Your task to perform on an android device: change the clock style Image 0: 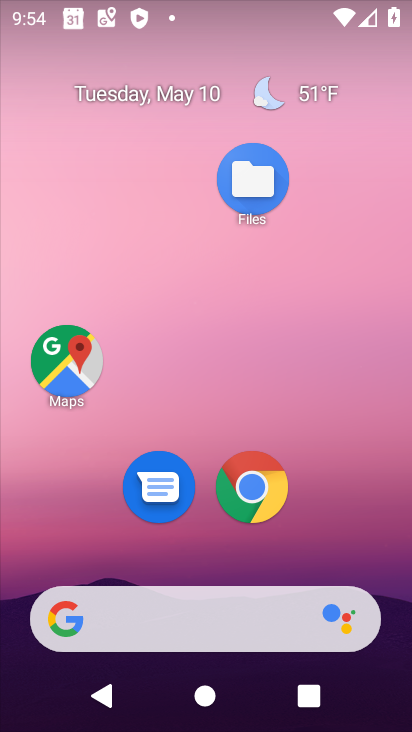
Step 0: drag from (192, 552) to (207, 145)
Your task to perform on an android device: change the clock style Image 1: 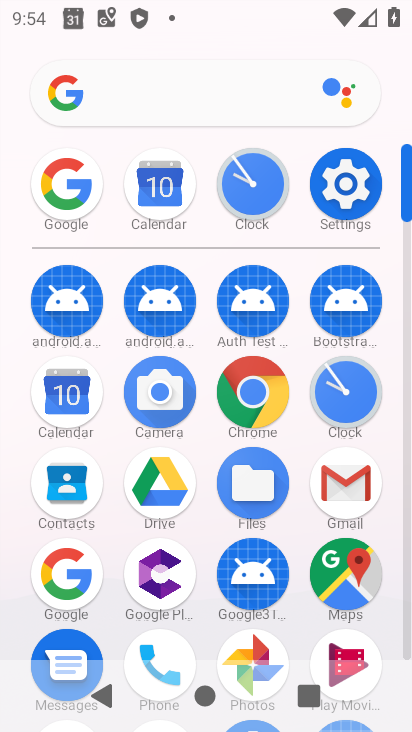
Step 1: click (348, 399)
Your task to perform on an android device: change the clock style Image 2: 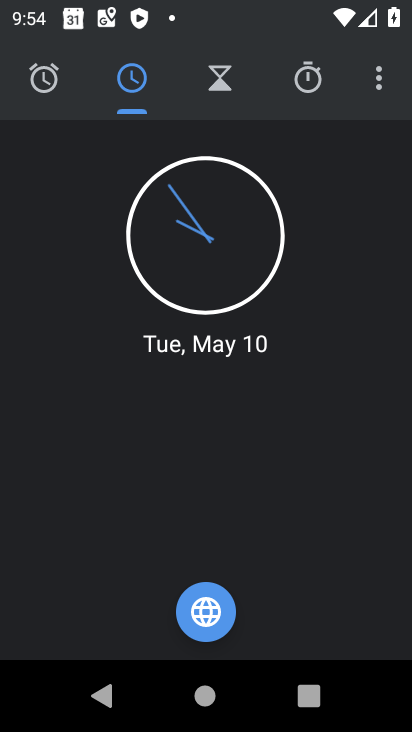
Step 2: click (369, 73)
Your task to perform on an android device: change the clock style Image 3: 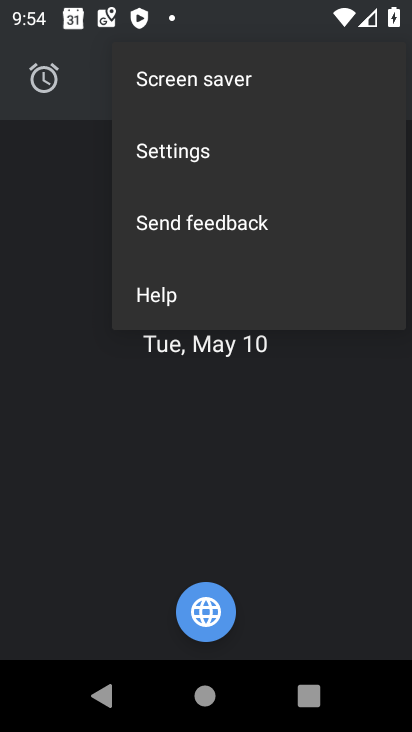
Step 3: click (162, 146)
Your task to perform on an android device: change the clock style Image 4: 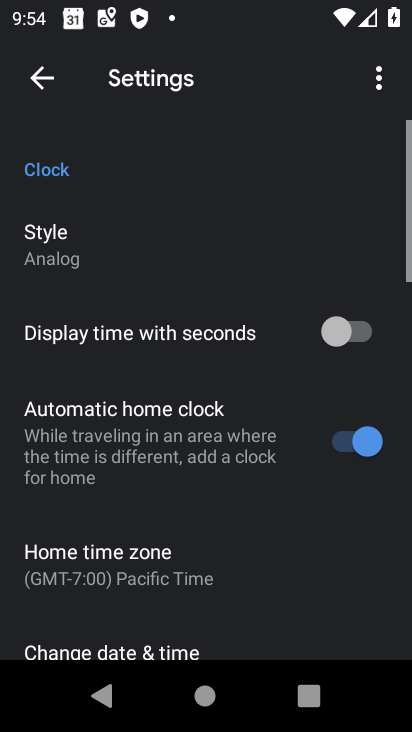
Step 4: click (124, 289)
Your task to perform on an android device: change the clock style Image 5: 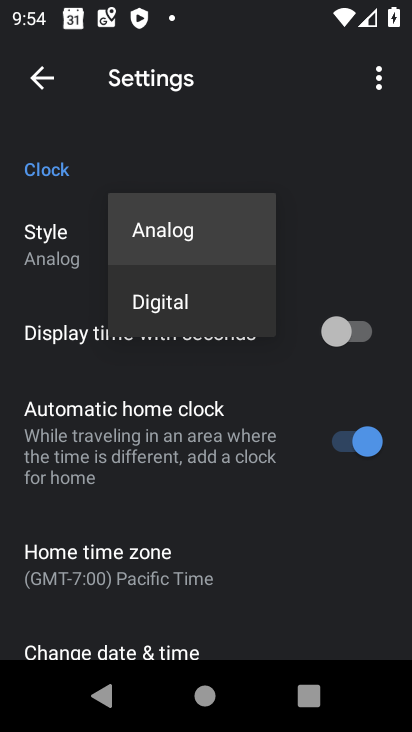
Step 5: click (159, 301)
Your task to perform on an android device: change the clock style Image 6: 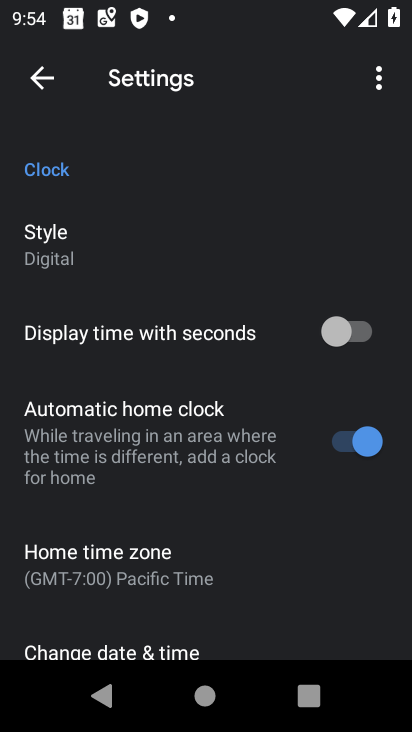
Step 6: task complete